Your task to perform on an android device: Clear the shopping cart on ebay. Search for "macbook" on ebay, select the first entry, add it to the cart, then select checkout. Image 0: 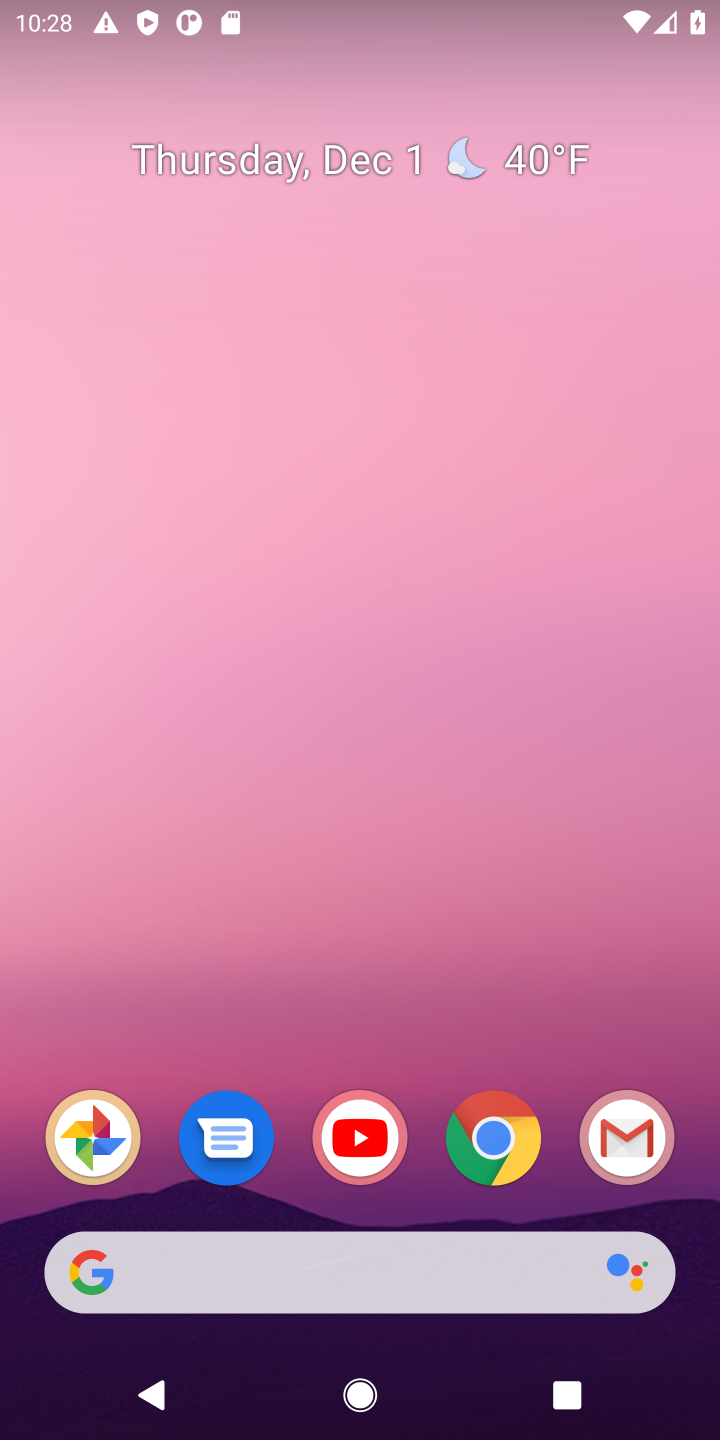
Step 0: drag from (409, 1306) to (440, 601)
Your task to perform on an android device: Clear the shopping cart on ebay. Search for "macbook" on ebay, select the first entry, add it to the cart, then select checkout. Image 1: 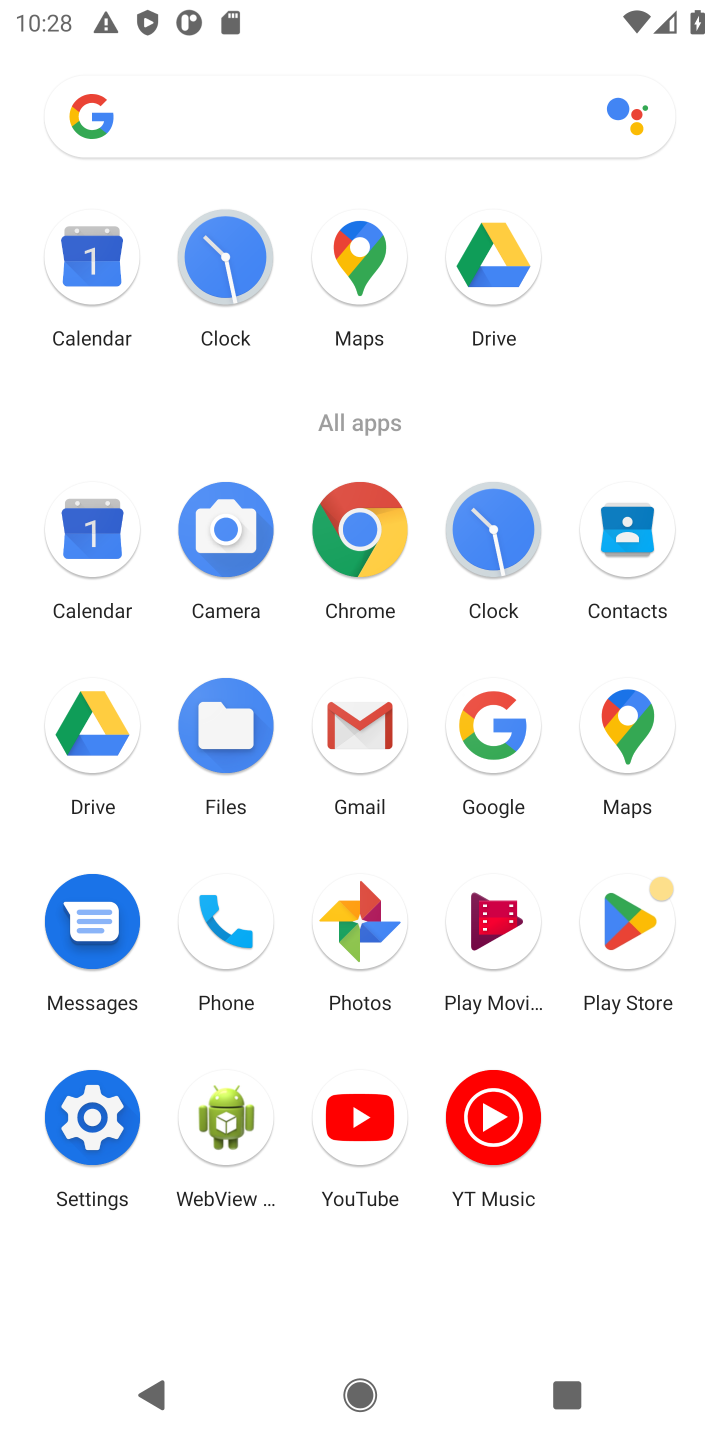
Step 1: click (504, 752)
Your task to perform on an android device: Clear the shopping cart on ebay. Search for "macbook" on ebay, select the first entry, add it to the cart, then select checkout. Image 2: 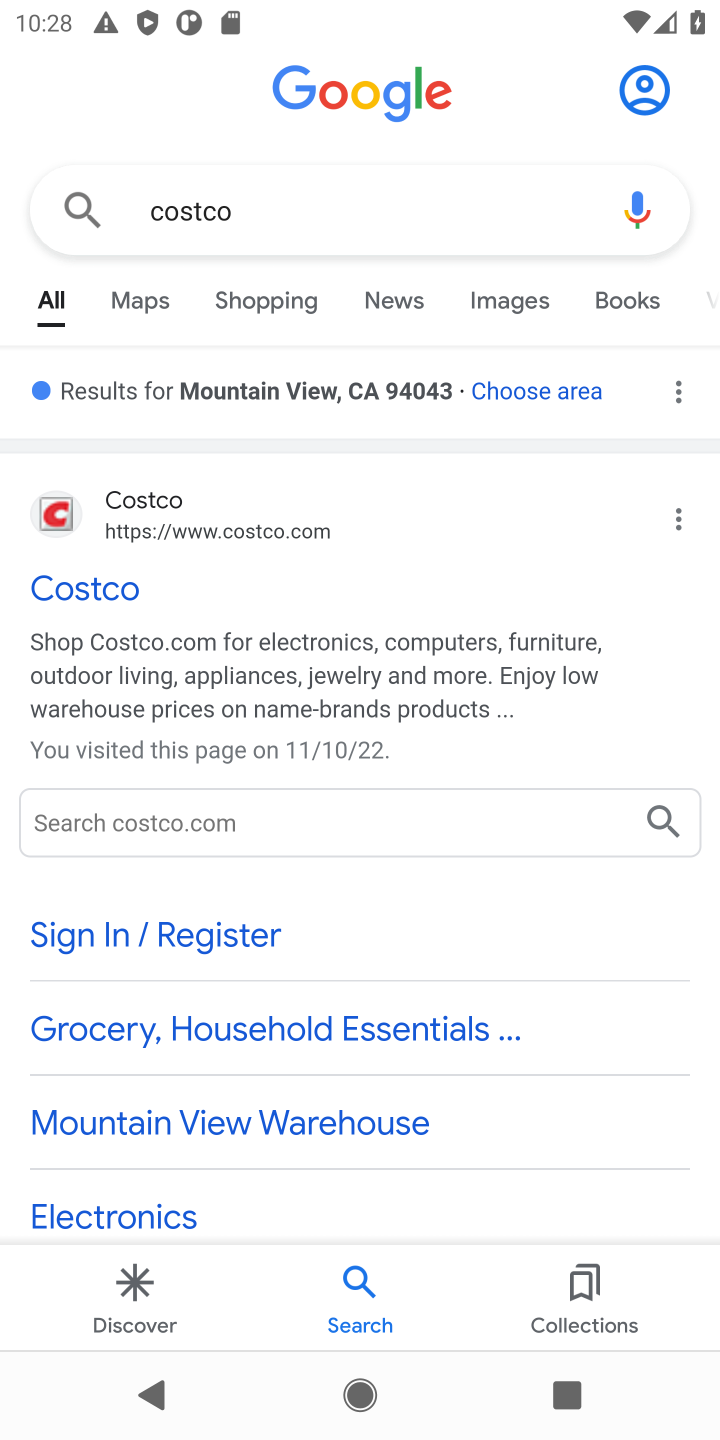
Step 2: click (383, 225)
Your task to perform on an android device: Clear the shopping cart on ebay. Search for "macbook" on ebay, select the first entry, add it to the cart, then select checkout. Image 3: 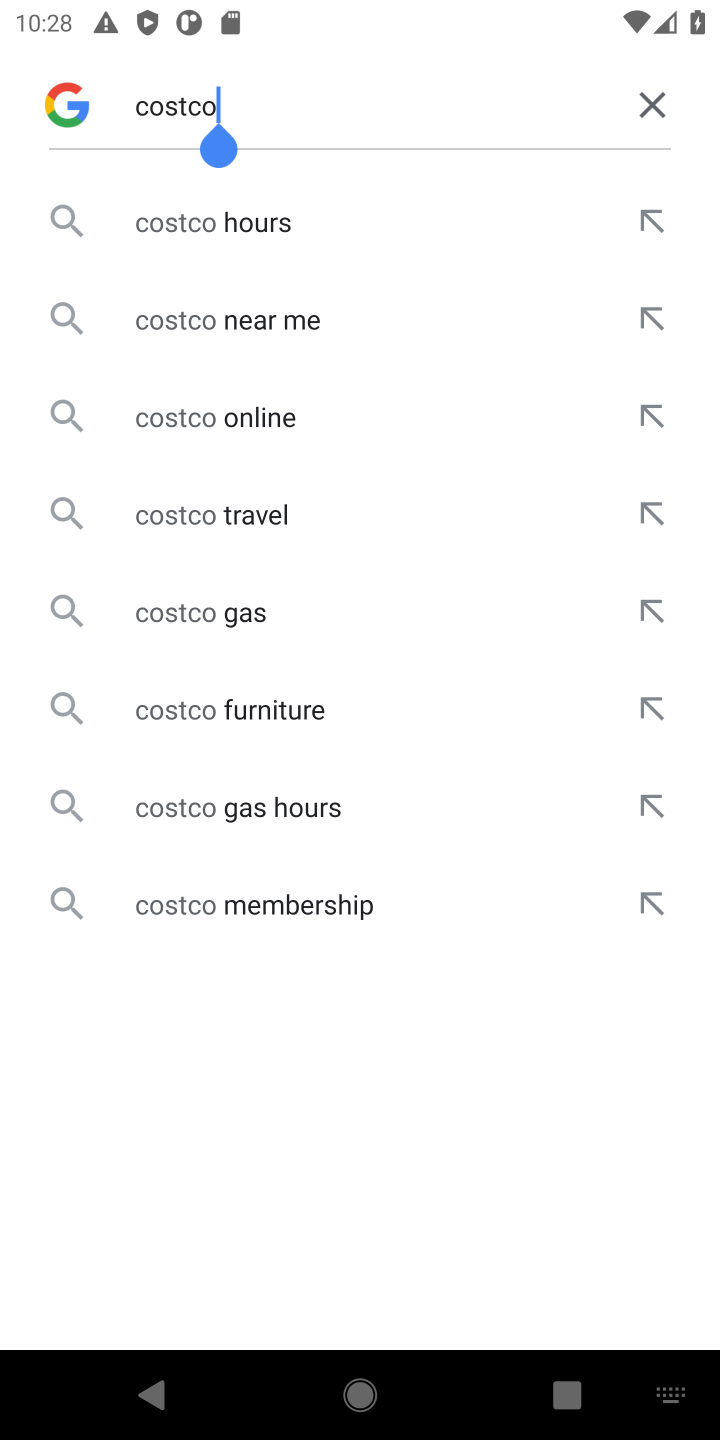
Step 3: click (642, 107)
Your task to perform on an android device: Clear the shopping cart on ebay. Search for "macbook" on ebay, select the first entry, add it to the cart, then select checkout. Image 4: 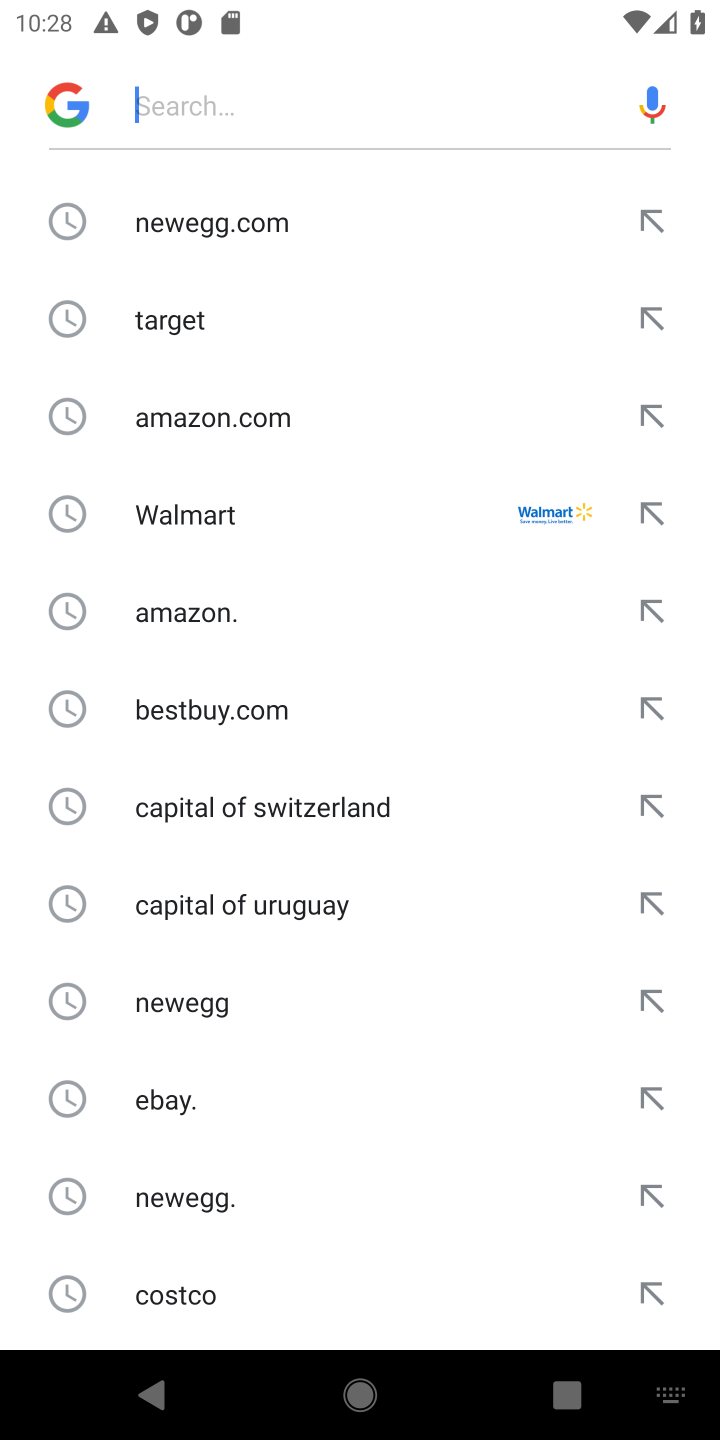
Step 4: type "ebay"
Your task to perform on an android device: Clear the shopping cart on ebay. Search for "macbook" on ebay, select the first entry, add it to the cart, then select checkout. Image 5: 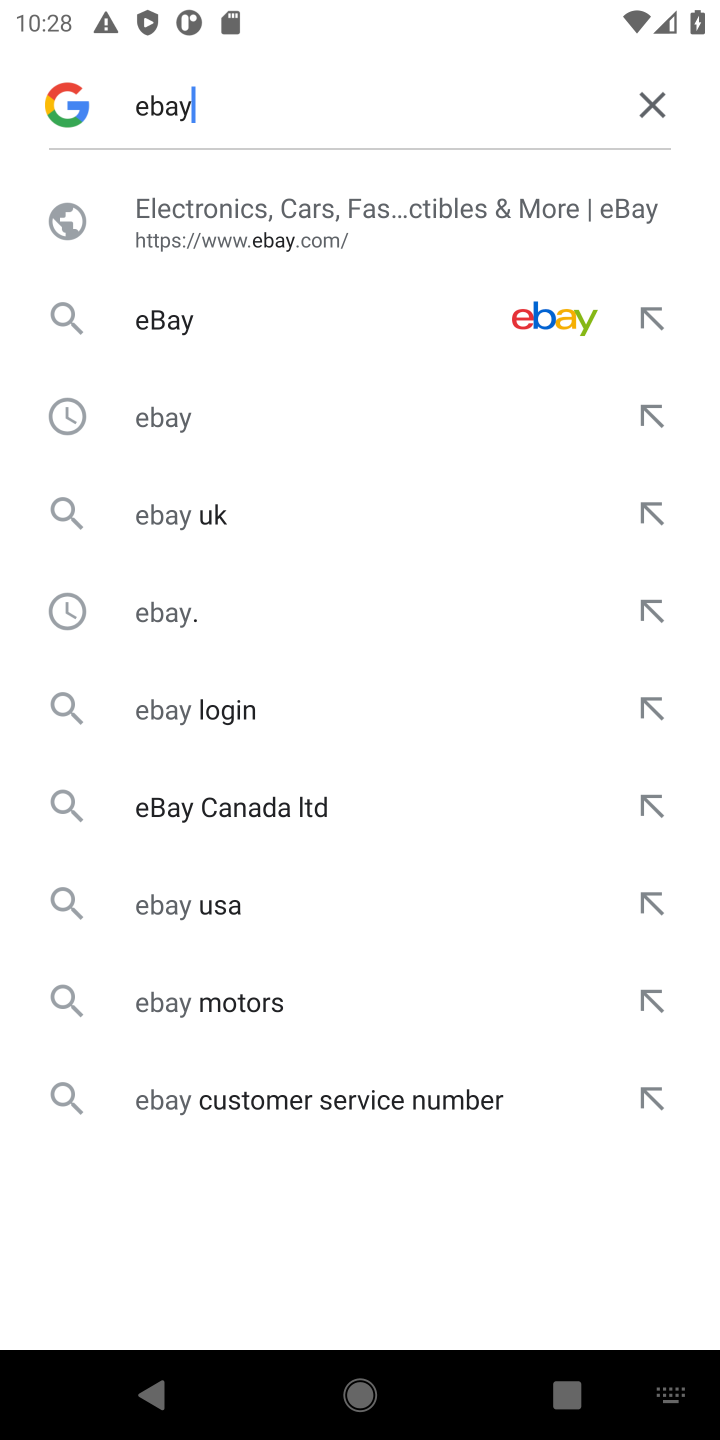
Step 5: click (455, 211)
Your task to perform on an android device: Clear the shopping cart on ebay. Search for "macbook" on ebay, select the first entry, add it to the cart, then select checkout. Image 6: 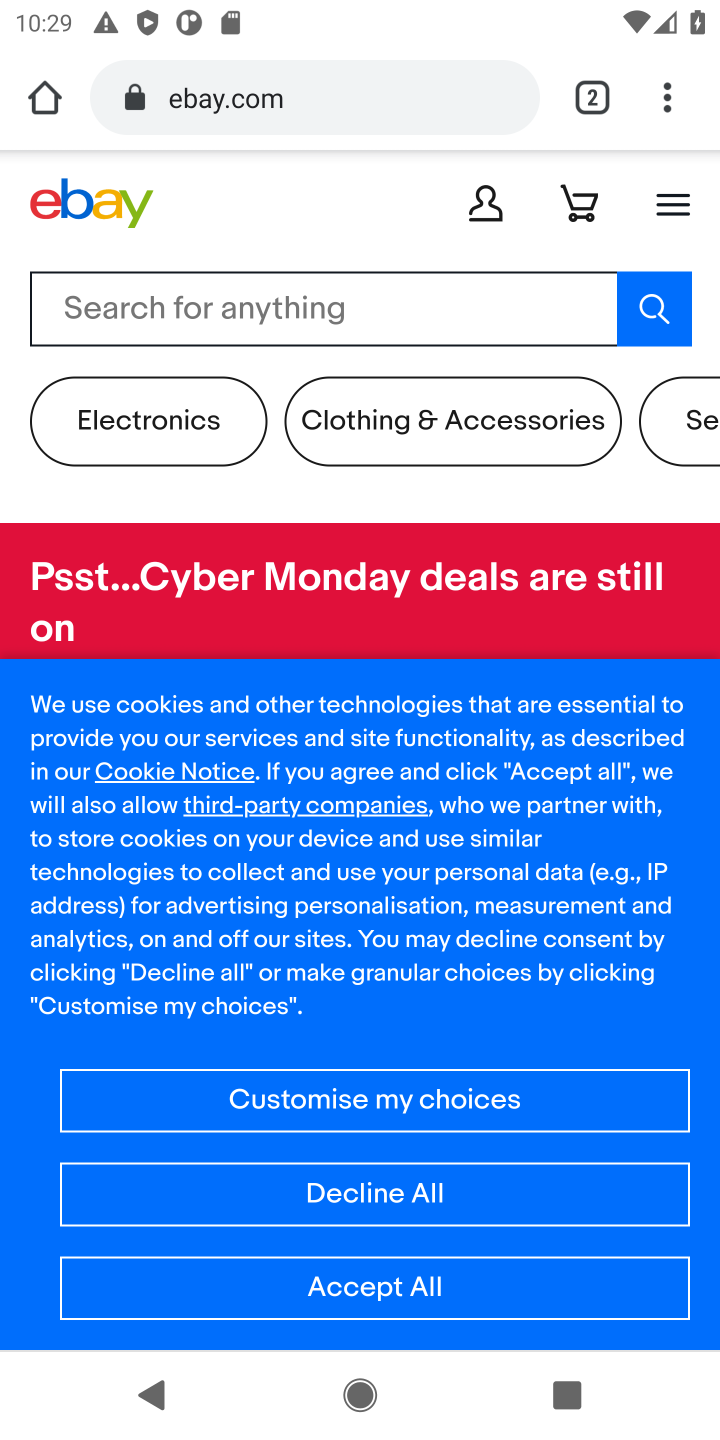
Step 6: click (310, 305)
Your task to perform on an android device: Clear the shopping cart on ebay. Search for "macbook" on ebay, select the first entry, add it to the cart, then select checkout. Image 7: 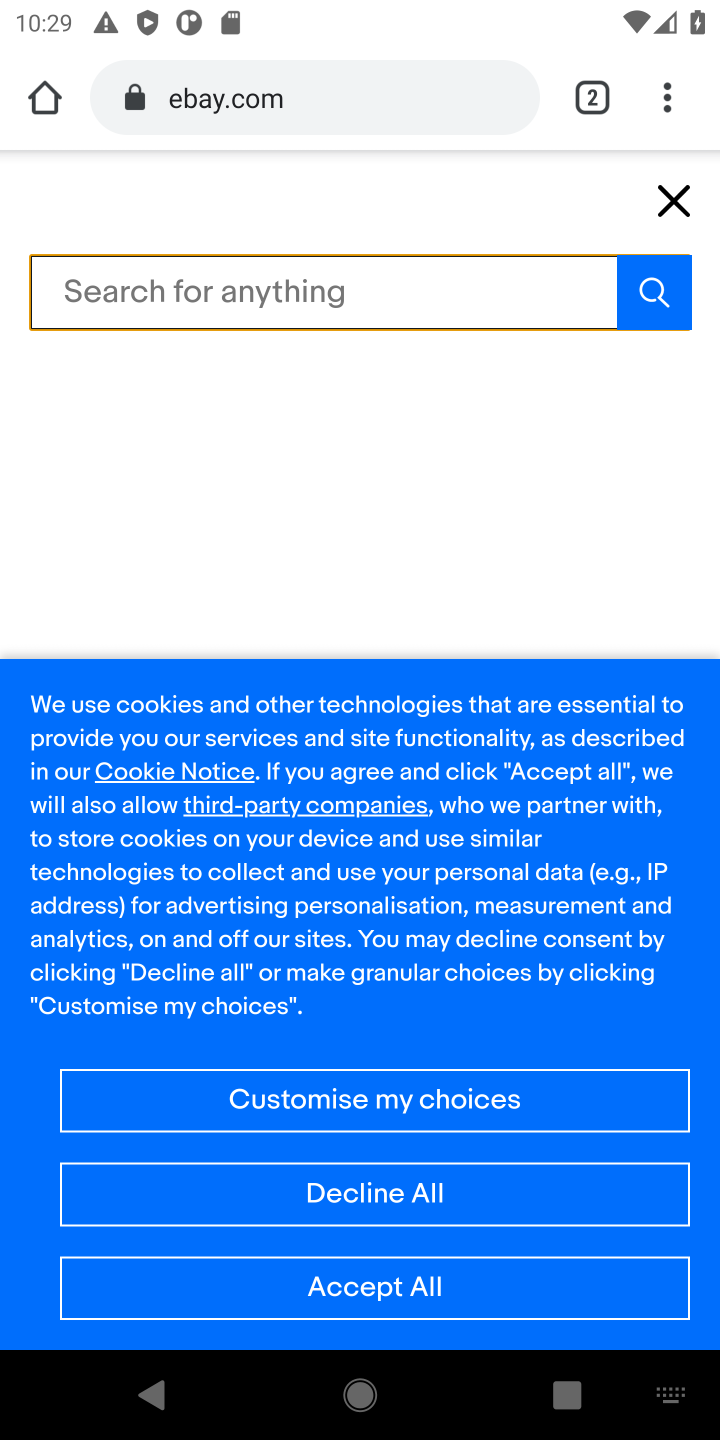
Step 7: type "macbook"
Your task to perform on an android device: Clear the shopping cart on ebay. Search for "macbook" on ebay, select the first entry, add it to the cart, then select checkout. Image 8: 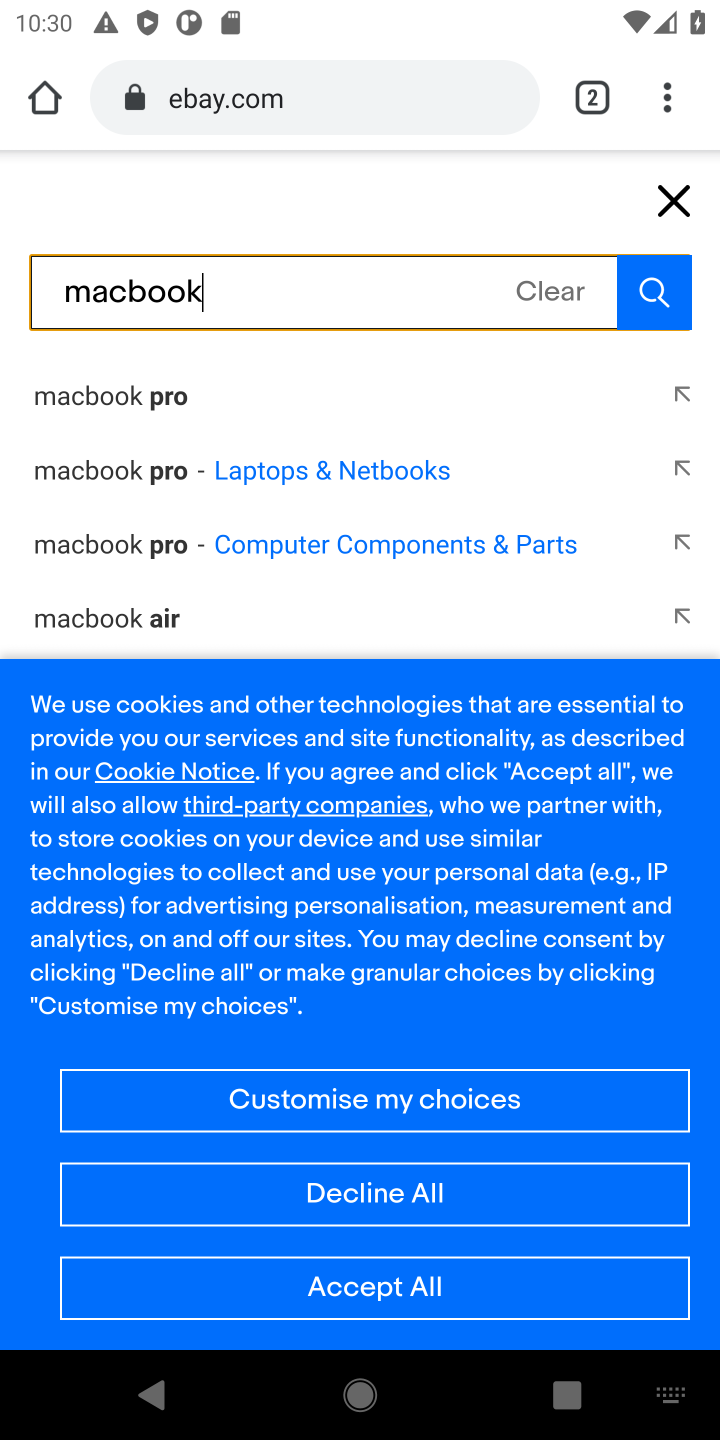
Step 8: click (639, 300)
Your task to perform on an android device: Clear the shopping cart on ebay. Search for "macbook" on ebay, select the first entry, add it to the cart, then select checkout. Image 9: 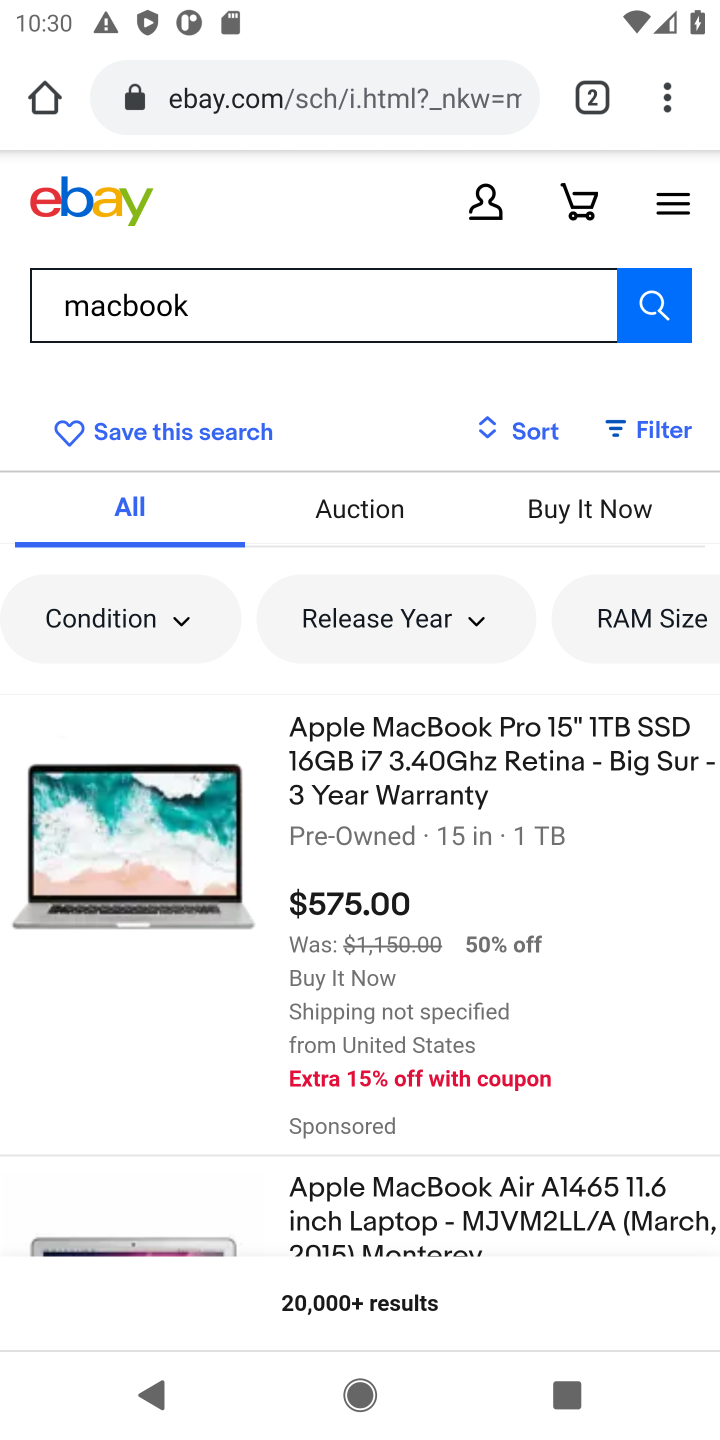
Step 9: click (277, 750)
Your task to perform on an android device: Clear the shopping cart on ebay. Search for "macbook" on ebay, select the first entry, add it to the cart, then select checkout. Image 10: 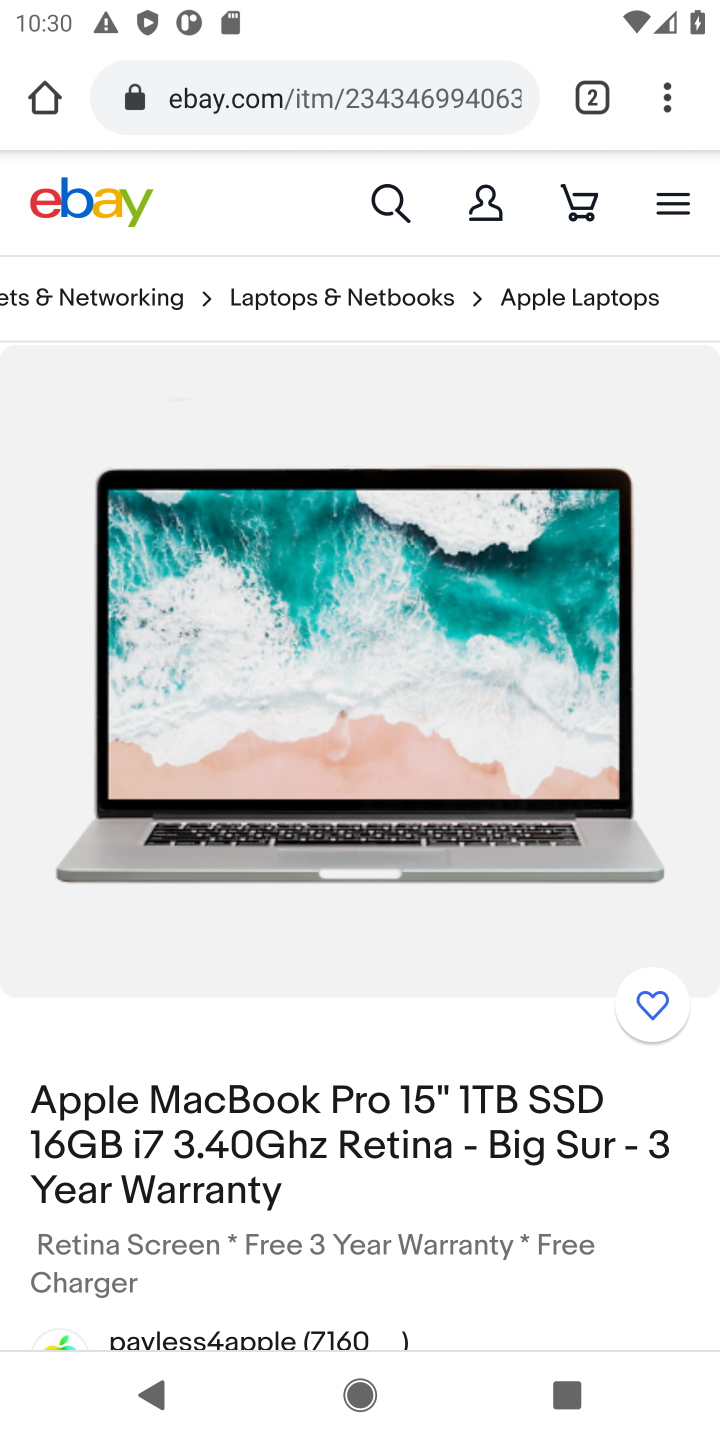
Step 10: drag from (471, 1138) to (449, 367)
Your task to perform on an android device: Clear the shopping cart on ebay. Search for "macbook" on ebay, select the first entry, add it to the cart, then select checkout. Image 11: 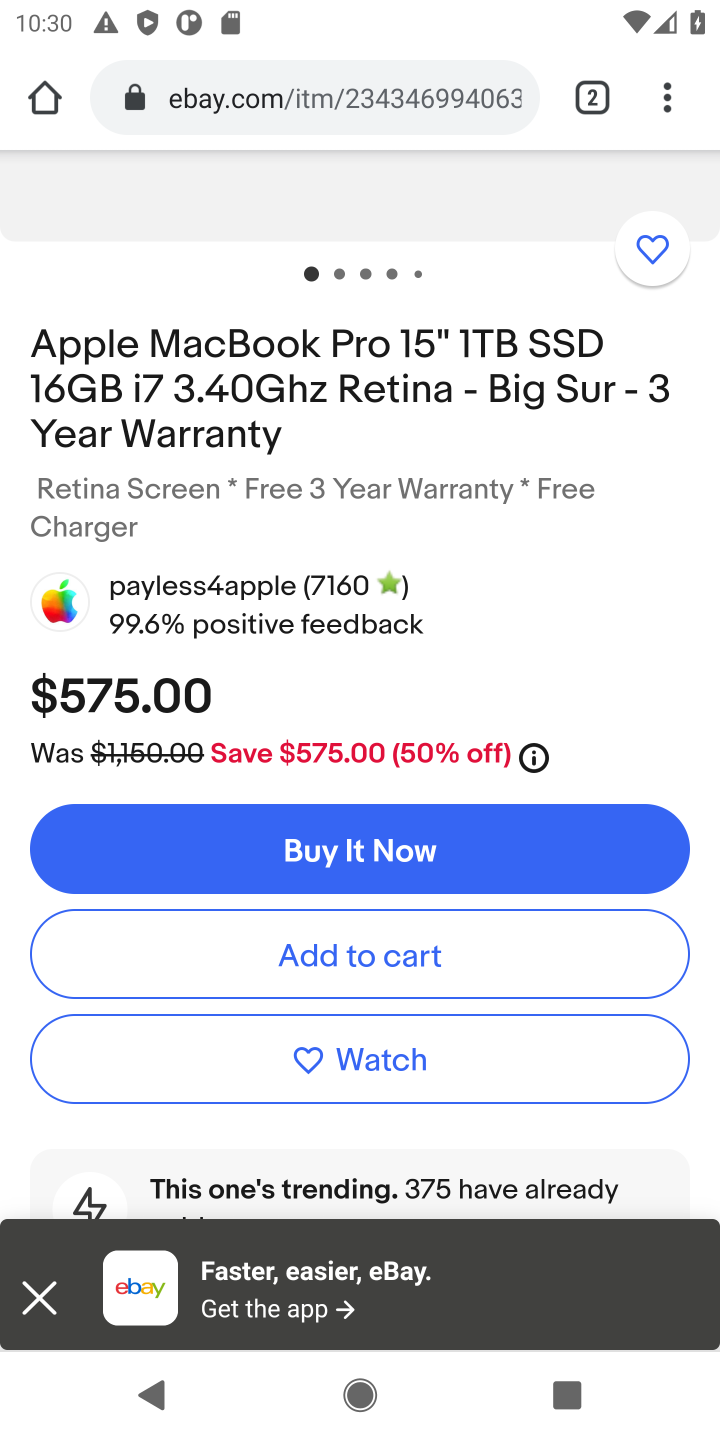
Step 11: click (384, 966)
Your task to perform on an android device: Clear the shopping cart on ebay. Search for "macbook" on ebay, select the first entry, add it to the cart, then select checkout. Image 12: 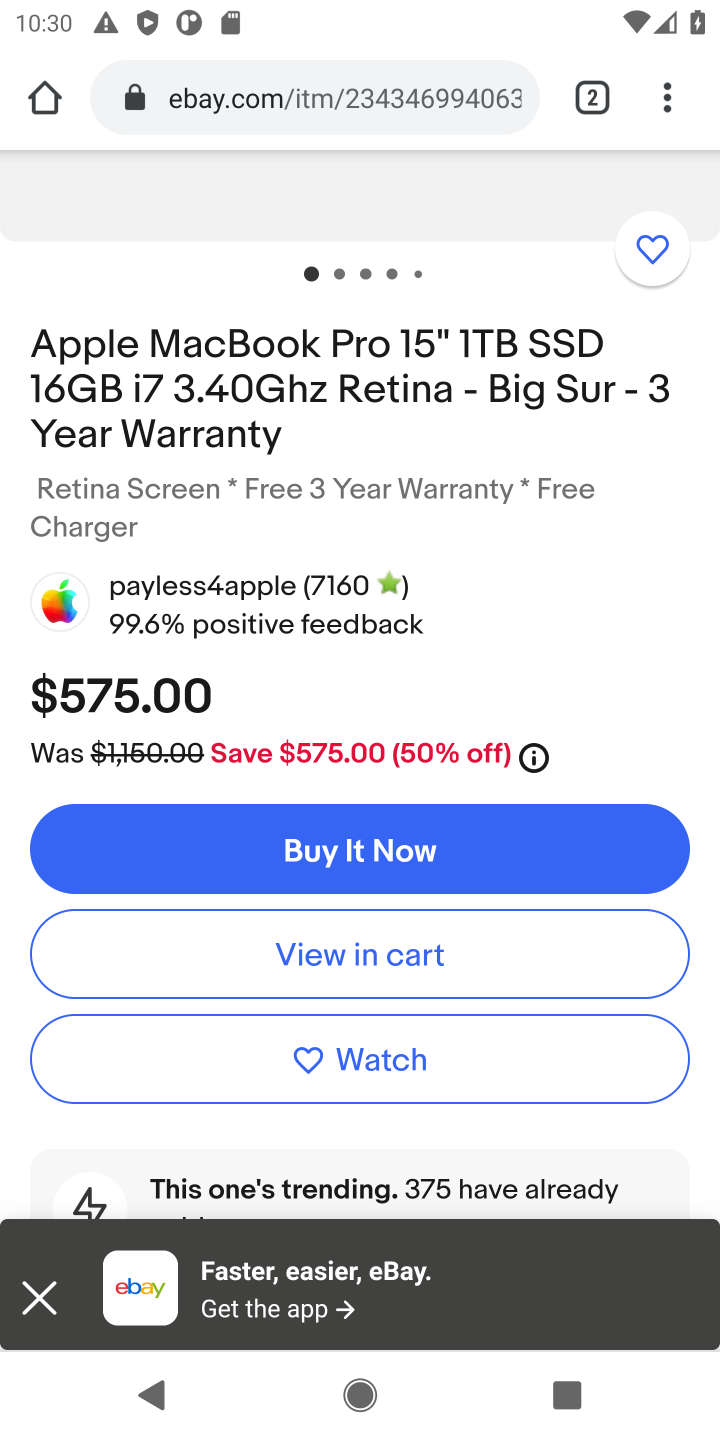
Step 12: click (384, 966)
Your task to perform on an android device: Clear the shopping cart on ebay. Search for "macbook" on ebay, select the first entry, add it to the cart, then select checkout. Image 13: 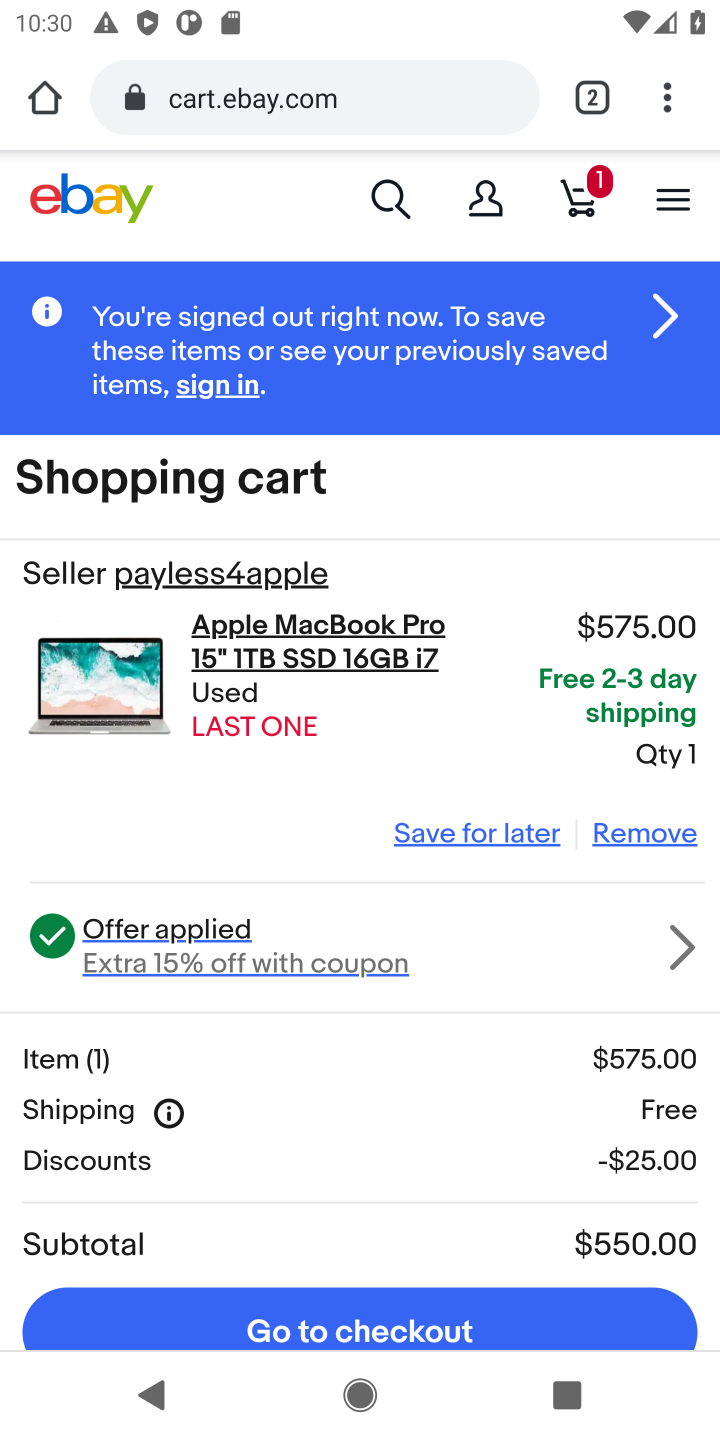
Step 13: click (456, 1320)
Your task to perform on an android device: Clear the shopping cart on ebay. Search for "macbook" on ebay, select the first entry, add it to the cart, then select checkout. Image 14: 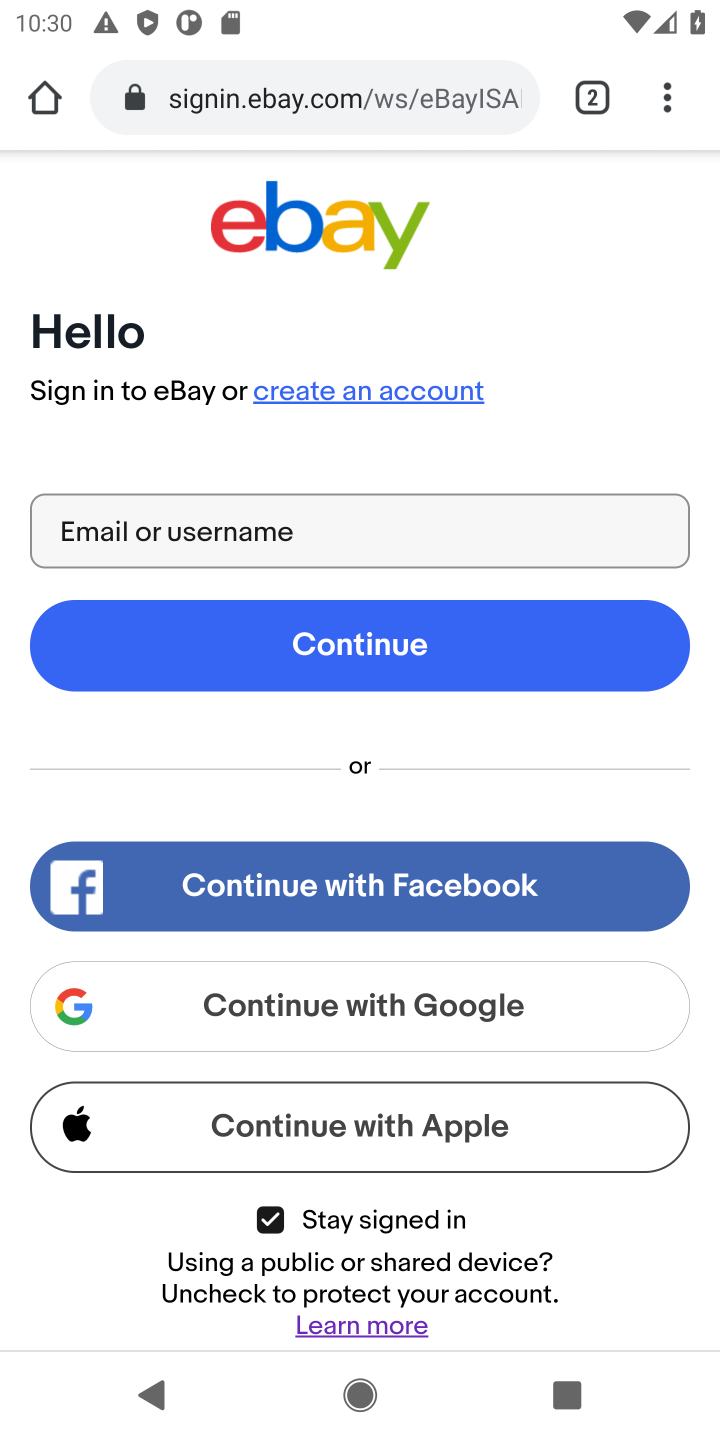
Step 14: task complete